Your task to perform on an android device: find photos in the google photos app Image 0: 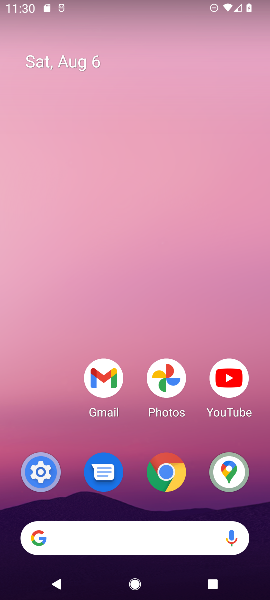
Step 0: drag from (222, 525) to (151, 65)
Your task to perform on an android device: find photos in the google photos app Image 1: 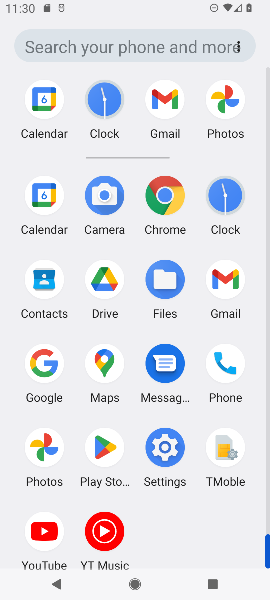
Step 1: click (142, 202)
Your task to perform on an android device: find photos in the google photos app Image 2: 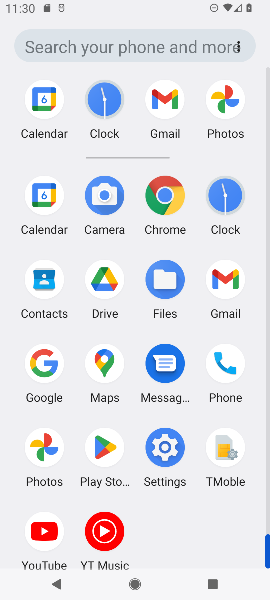
Step 2: click (150, 202)
Your task to perform on an android device: find photos in the google photos app Image 3: 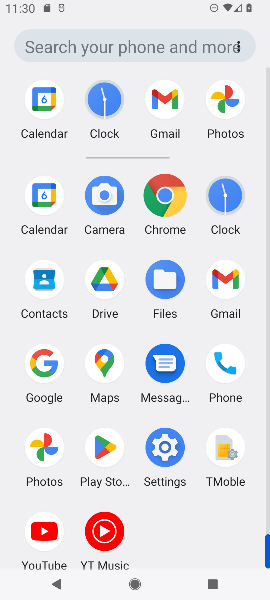
Step 3: click (166, 194)
Your task to perform on an android device: find photos in the google photos app Image 4: 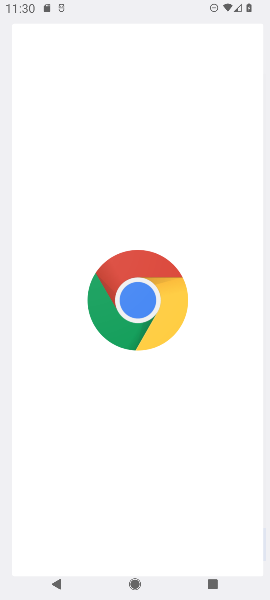
Step 4: click (166, 194)
Your task to perform on an android device: find photos in the google photos app Image 5: 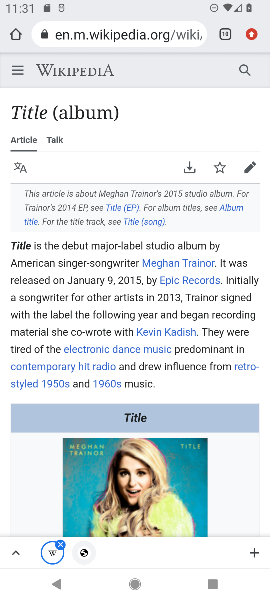
Step 5: press back button
Your task to perform on an android device: find photos in the google photos app Image 6: 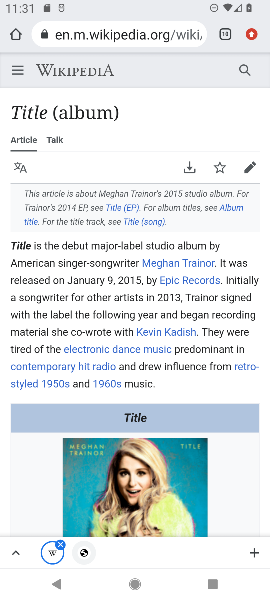
Step 6: press back button
Your task to perform on an android device: find photos in the google photos app Image 7: 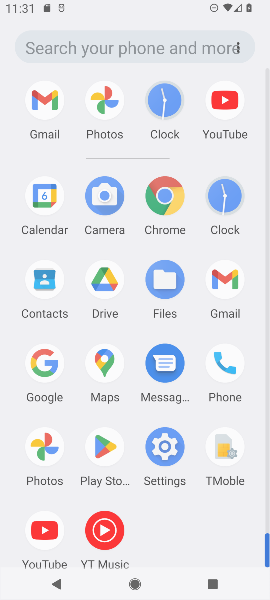
Step 7: press back button
Your task to perform on an android device: find photos in the google photos app Image 8: 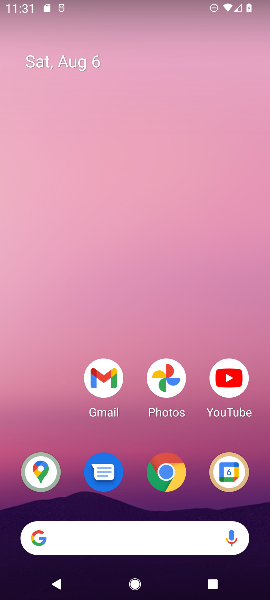
Step 8: drag from (174, 551) to (93, 62)
Your task to perform on an android device: find photos in the google photos app Image 9: 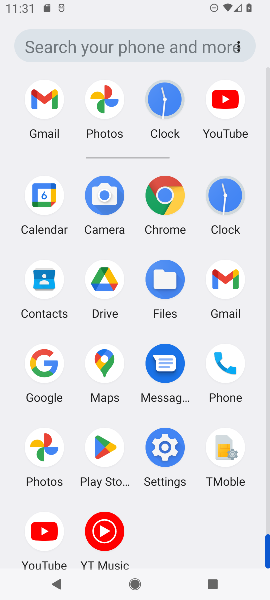
Step 9: click (46, 442)
Your task to perform on an android device: find photos in the google photos app Image 10: 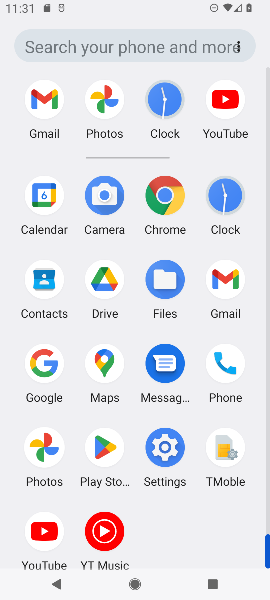
Step 10: click (46, 442)
Your task to perform on an android device: find photos in the google photos app Image 11: 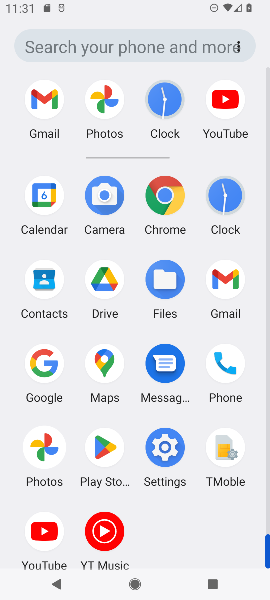
Step 11: click (46, 442)
Your task to perform on an android device: find photos in the google photos app Image 12: 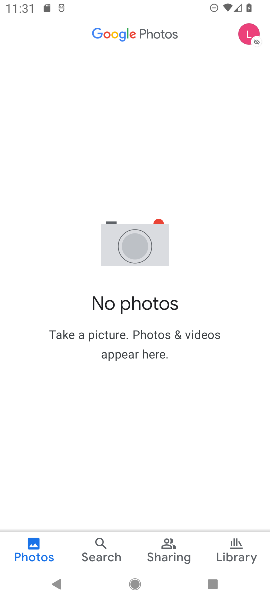
Step 12: task complete